Your task to perform on an android device: Turn off the flashlight Image 0: 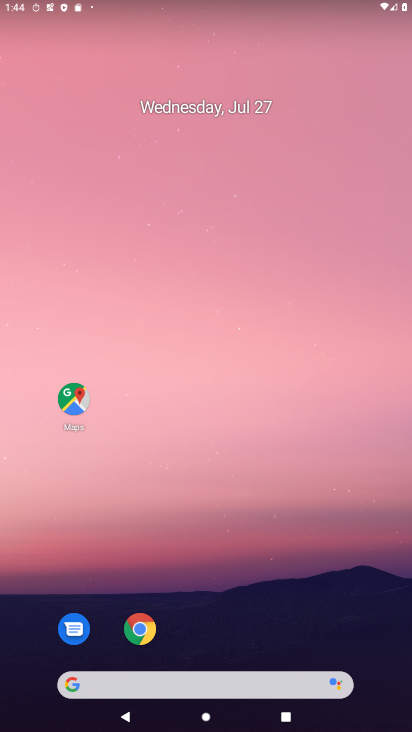
Step 0: drag from (337, 586) to (177, 59)
Your task to perform on an android device: Turn off the flashlight Image 1: 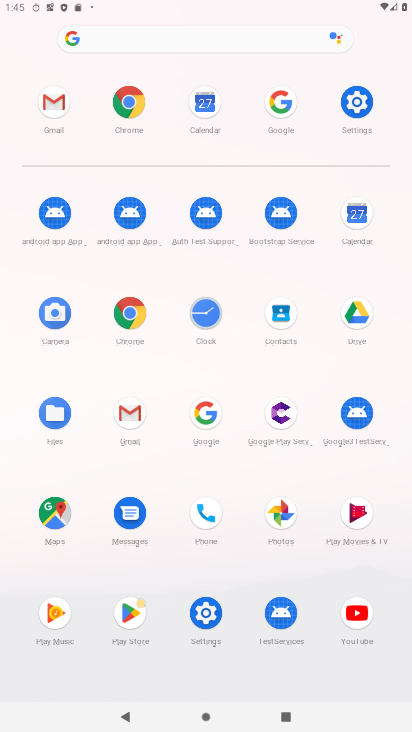
Step 1: click (199, 612)
Your task to perform on an android device: Turn off the flashlight Image 2: 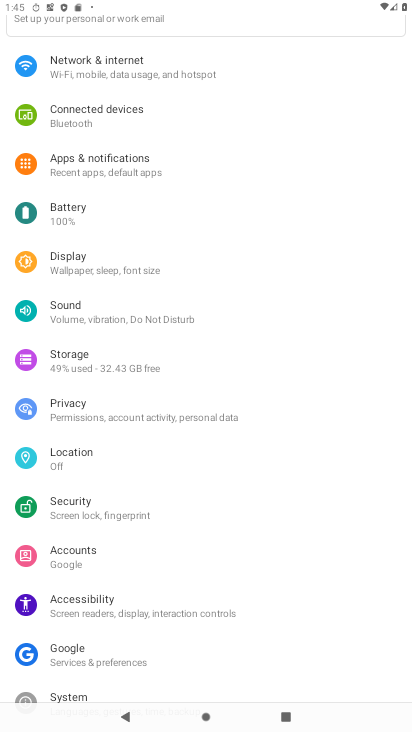
Step 2: task complete